Your task to perform on an android device: manage bookmarks in the chrome app Image 0: 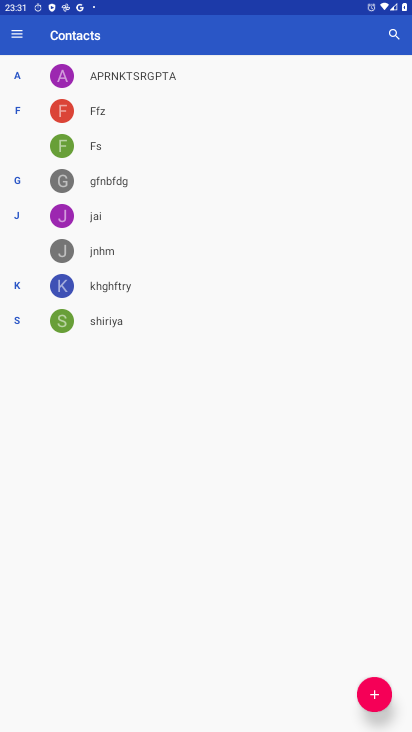
Step 0: press home button
Your task to perform on an android device: manage bookmarks in the chrome app Image 1: 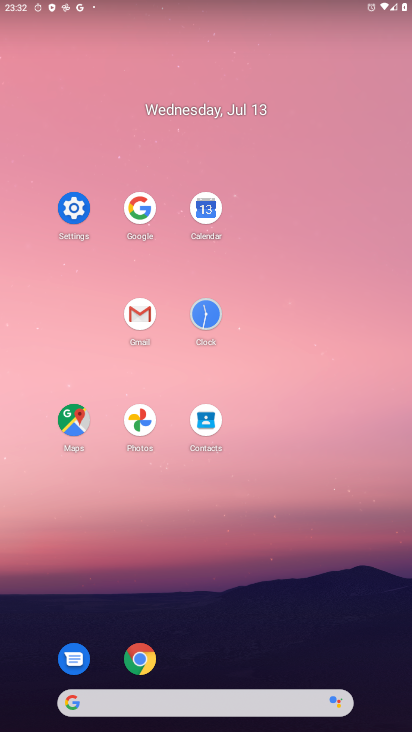
Step 1: click (141, 668)
Your task to perform on an android device: manage bookmarks in the chrome app Image 2: 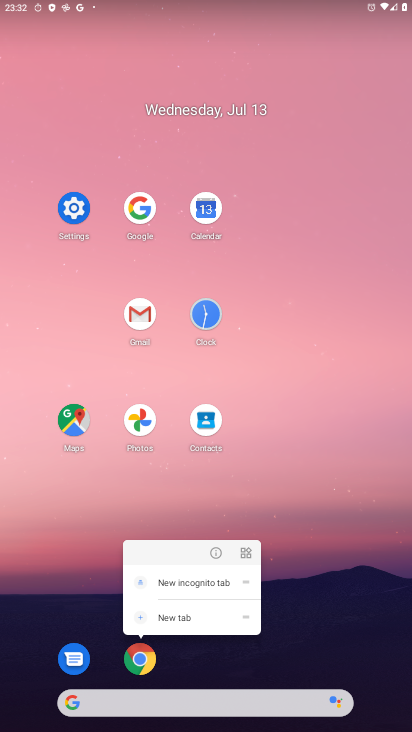
Step 2: click (150, 651)
Your task to perform on an android device: manage bookmarks in the chrome app Image 3: 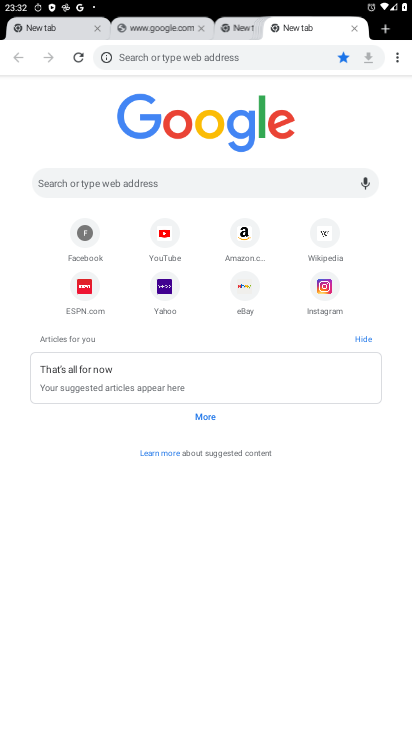
Step 3: click (401, 56)
Your task to perform on an android device: manage bookmarks in the chrome app Image 4: 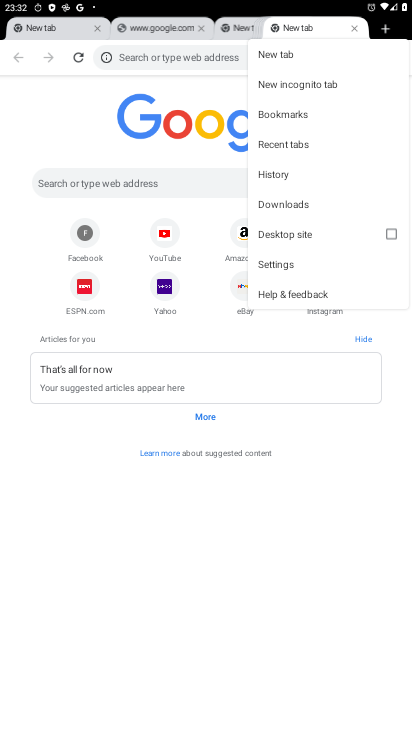
Step 4: click (294, 115)
Your task to perform on an android device: manage bookmarks in the chrome app Image 5: 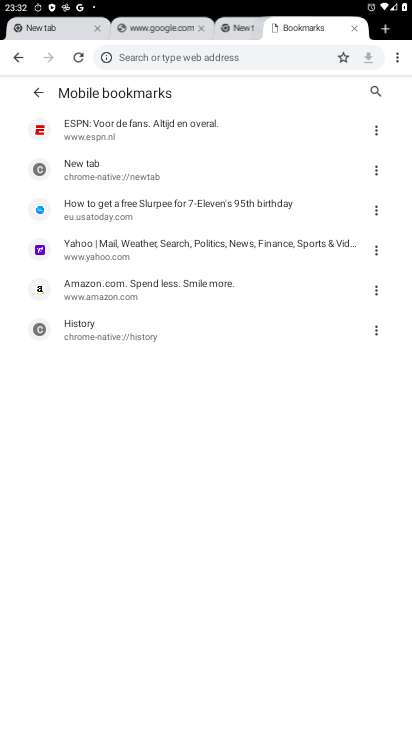
Step 5: click (375, 122)
Your task to perform on an android device: manage bookmarks in the chrome app Image 6: 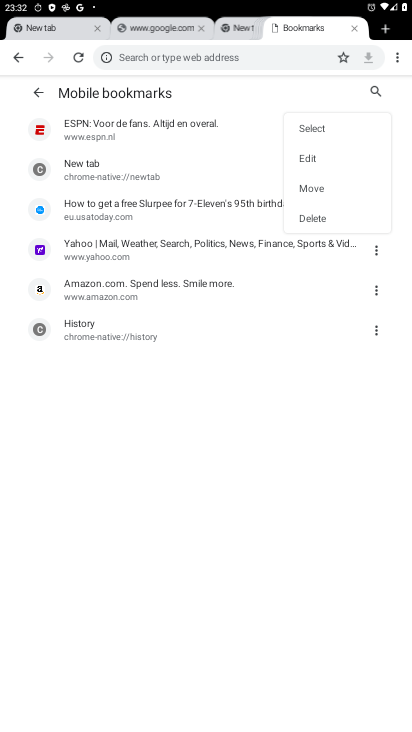
Step 6: click (310, 215)
Your task to perform on an android device: manage bookmarks in the chrome app Image 7: 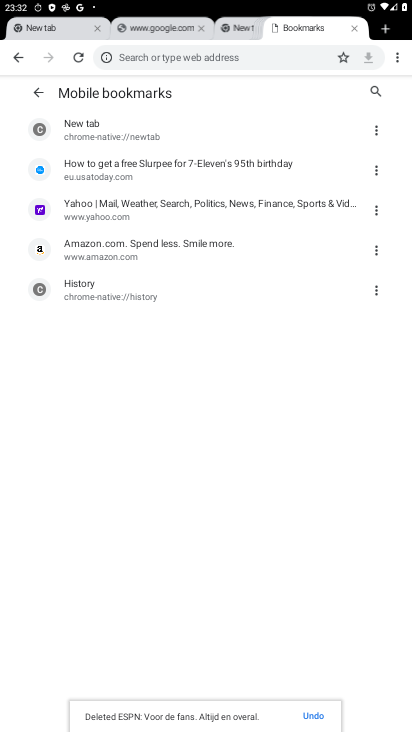
Step 7: task complete